Your task to perform on an android device: all mails in gmail Image 0: 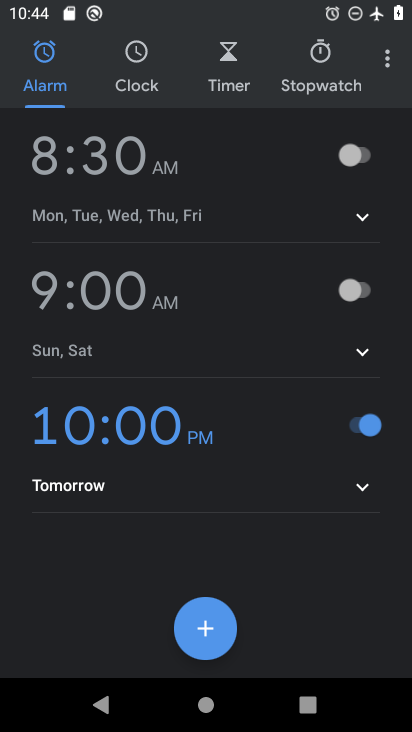
Step 0: press home button
Your task to perform on an android device: all mails in gmail Image 1: 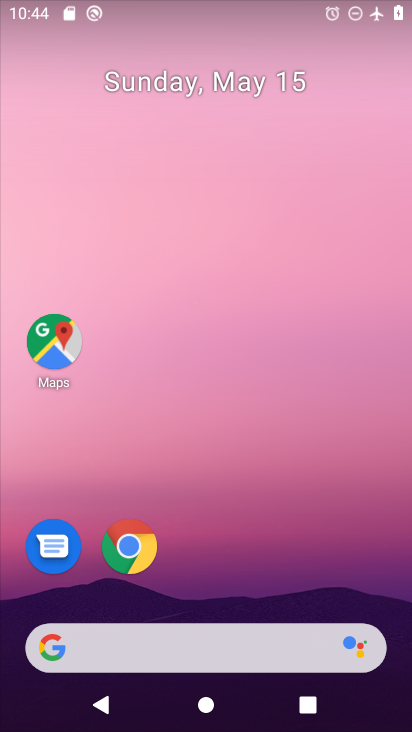
Step 1: drag from (256, 587) to (272, 215)
Your task to perform on an android device: all mails in gmail Image 2: 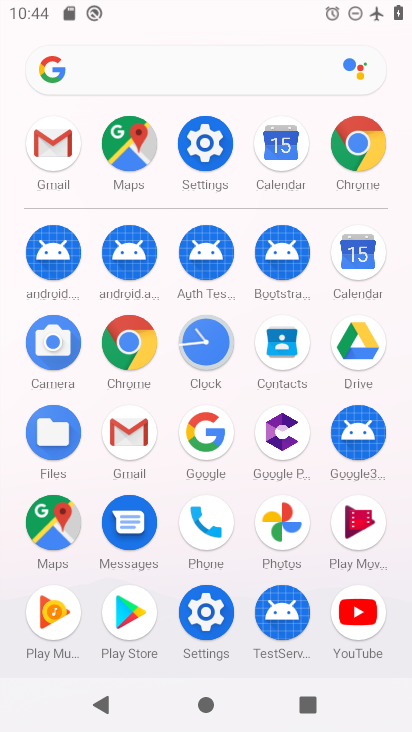
Step 2: click (56, 139)
Your task to perform on an android device: all mails in gmail Image 3: 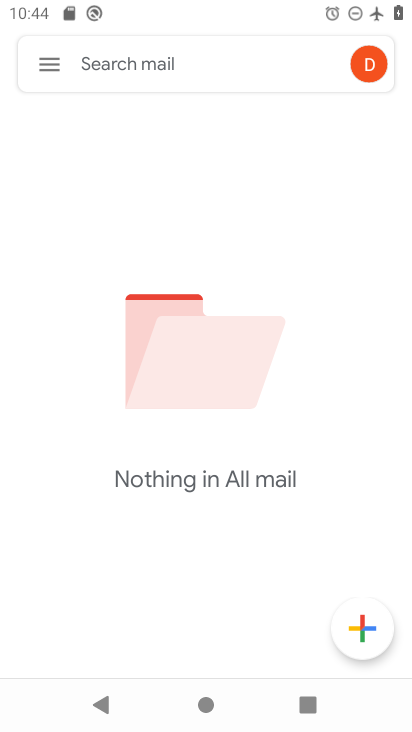
Step 3: click (65, 79)
Your task to perform on an android device: all mails in gmail Image 4: 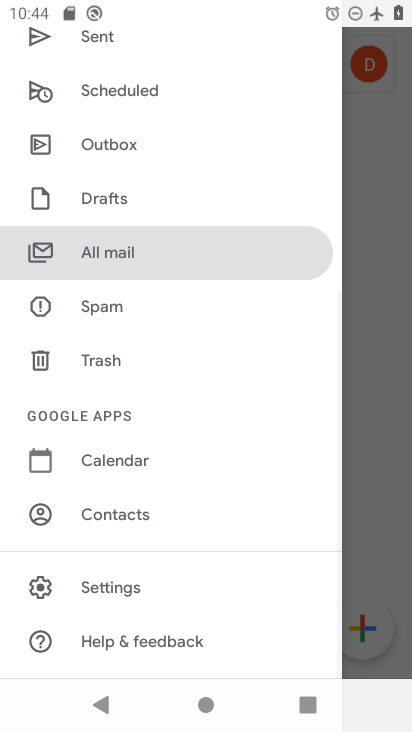
Step 4: click (196, 255)
Your task to perform on an android device: all mails in gmail Image 5: 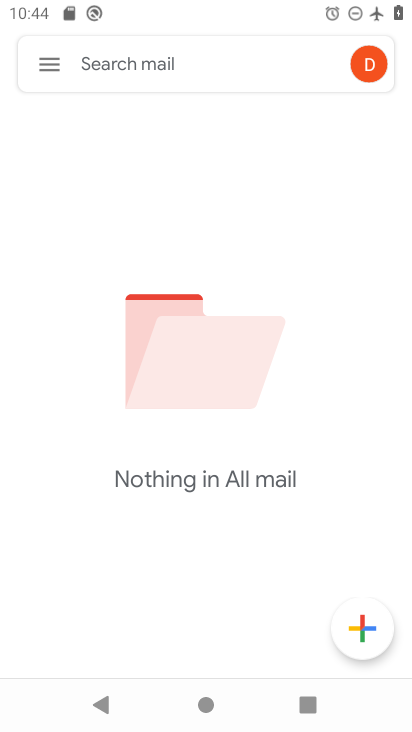
Step 5: task complete